Your task to perform on an android device: check data usage Image 0: 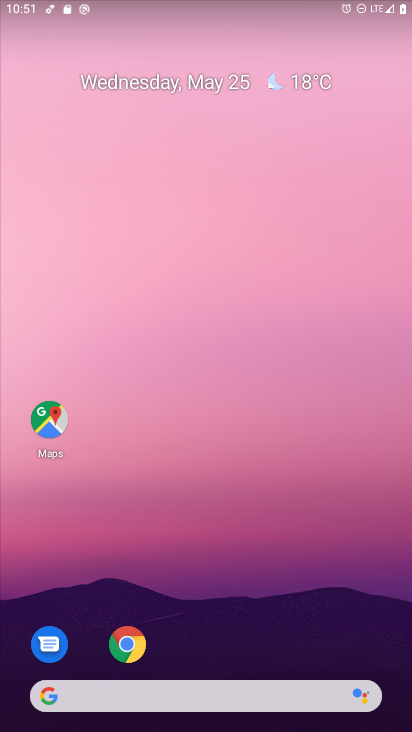
Step 0: drag from (216, 662) to (254, 274)
Your task to perform on an android device: check data usage Image 1: 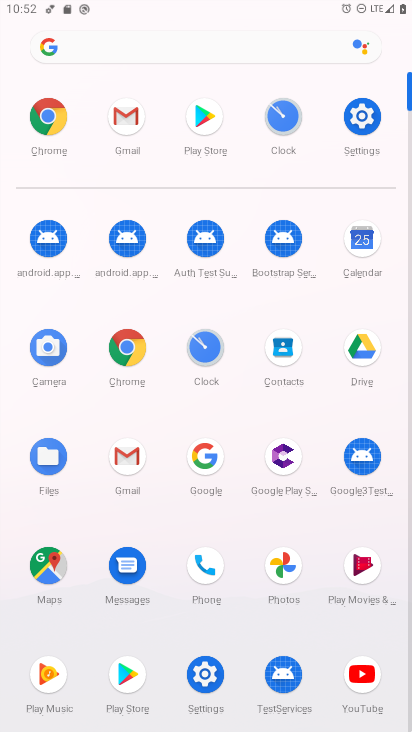
Step 1: click (368, 118)
Your task to perform on an android device: check data usage Image 2: 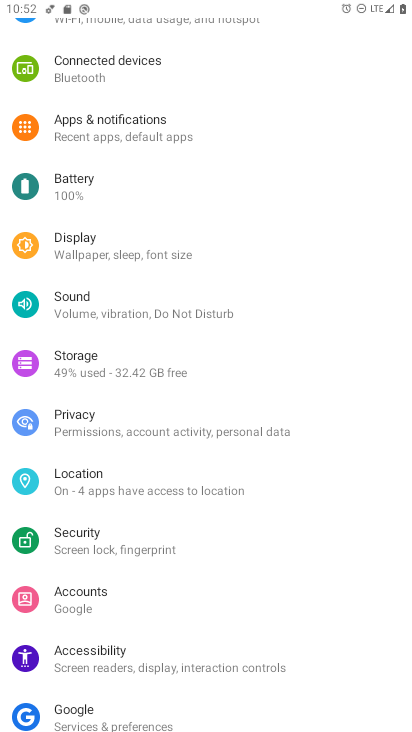
Step 2: drag from (150, 135) to (146, 305)
Your task to perform on an android device: check data usage Image 3: 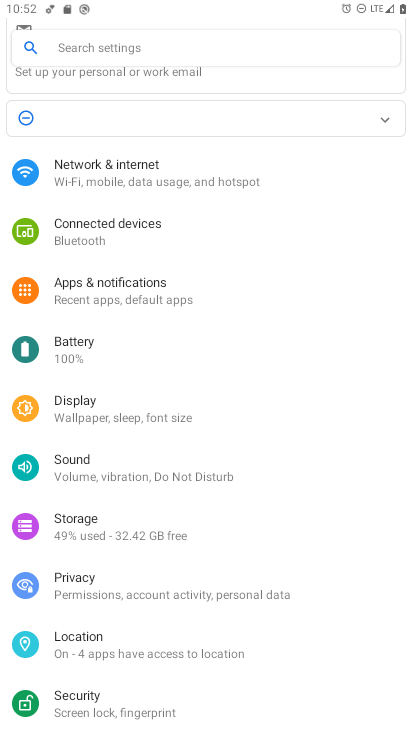
Step 3: click (158, 160)
Your task to perform on an android device: check data usage Image 4: 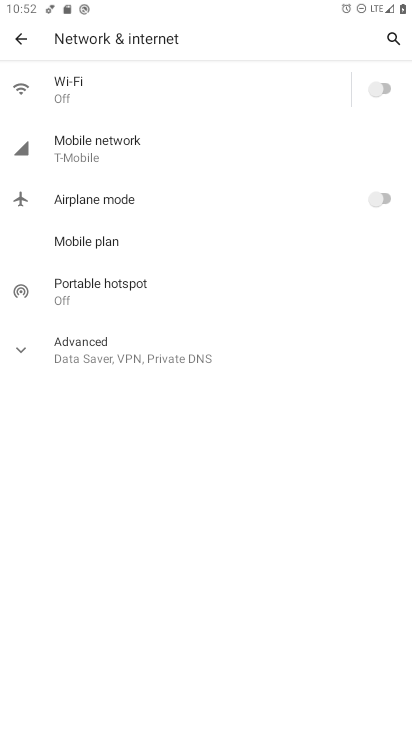
Step 4: click (117, 151)
Your task to perform on an android device: check data usage Image 5: 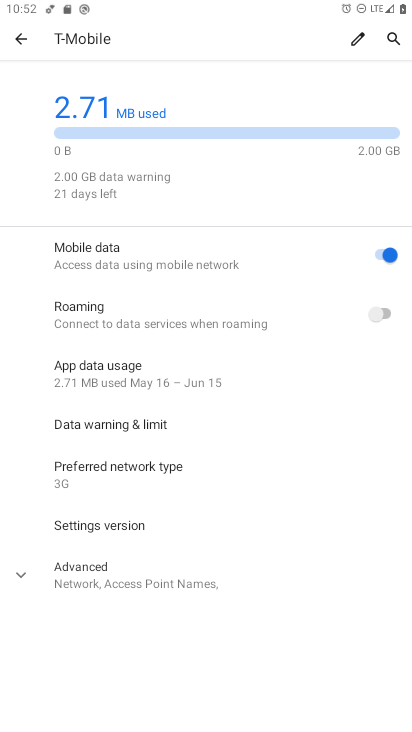
Step 5: click (133, 370)
Your task to perform on an android device: check data usage Image 6: 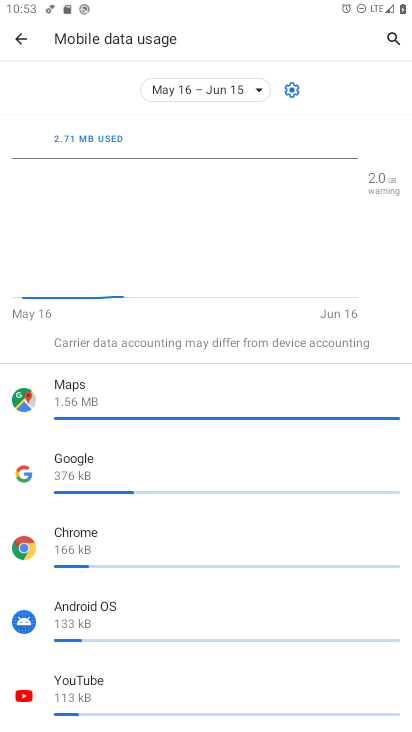
Step 6: task complete